Your task to perform on an android device: set the stopwatch Image 0: 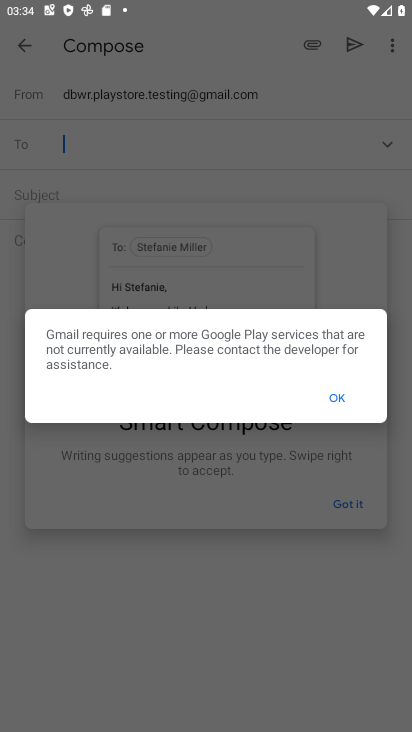
Step 0: press home button
Your task to perform on an android device: set the stopwatch Image 1: 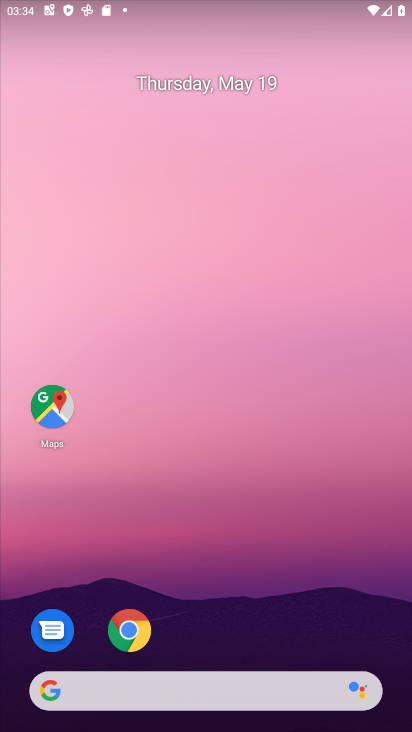
Step 1: drag from (396, 644) to (363, 55)
Your task to perform on an android device: set the stopwatch Image 2: 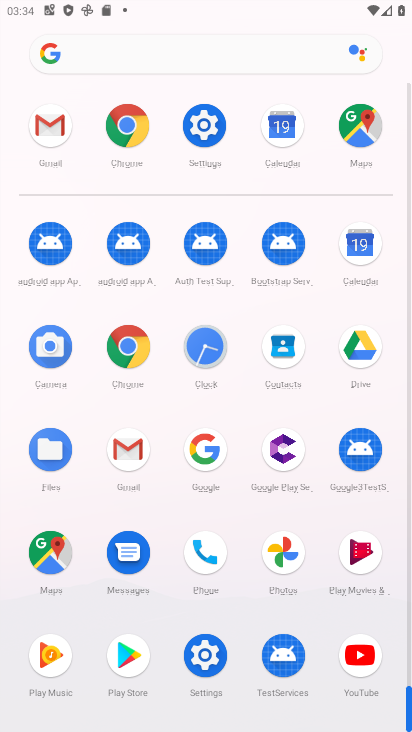
Step 2: click (207, 347)
Your task to perform on an android device: set the stopwatch Image 3: 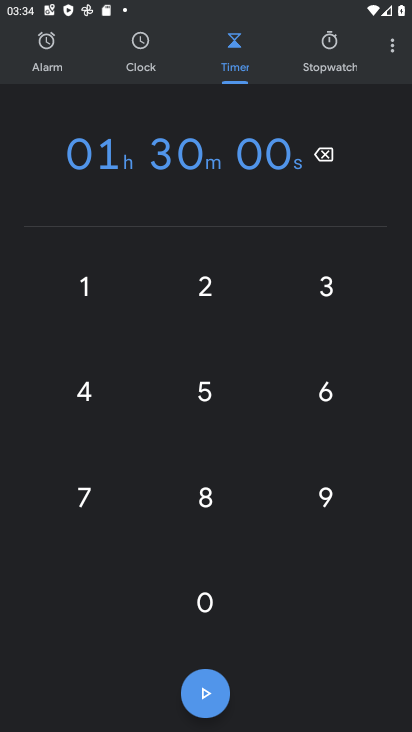
Step 3: click (331, 45)
Your task to perform on an android device: set the stopwatch Image 4: 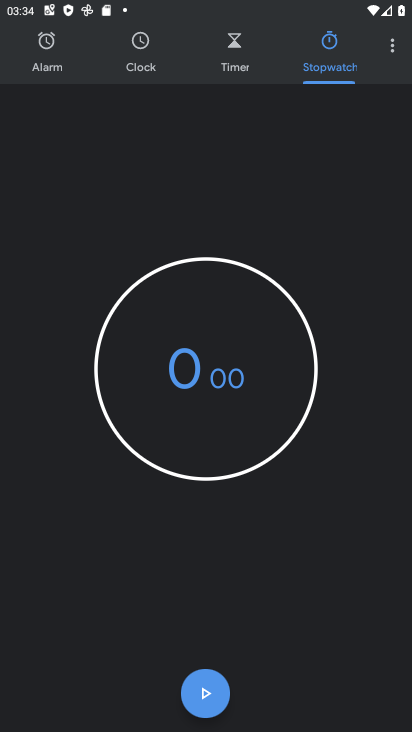
Step 4: task complete